Your task to perform on an android device: change the clock display to digital Image 0: 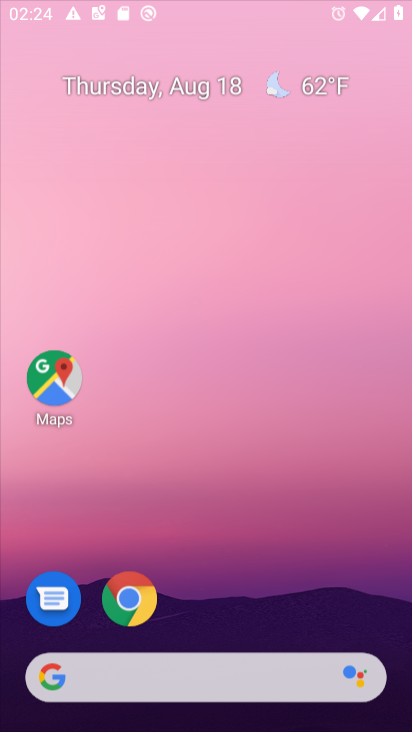
Step 0: press home button
Your task to perform on an android device: change the clock display to digital Image 1: 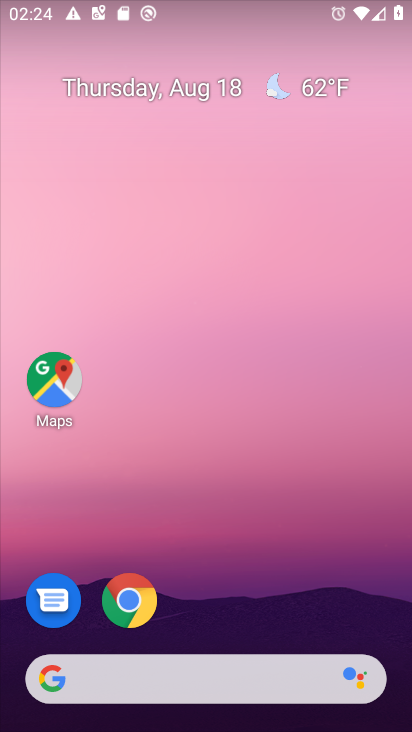
Step 1: drag from (225, 600) to (230, 145)
Your task to perform on an android device: change the clock display to digital Image 2: 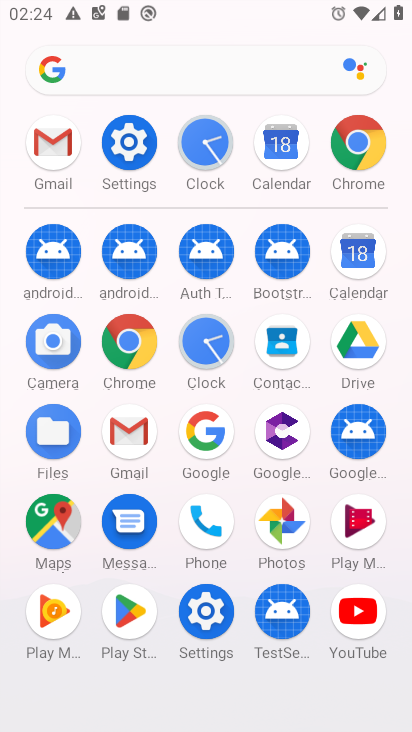
Step 2: click (202, 352)
Your task to perform on an android device: change the clock display to digital Image 3: 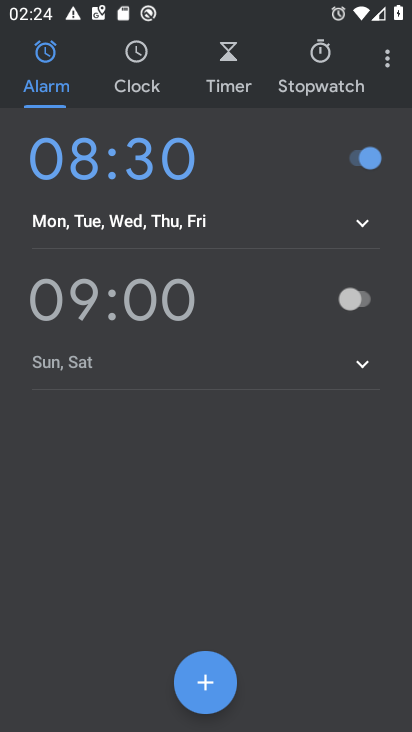
Step 3: click (383, 55)
Your task to perform on an android device: change the clock display to digital Image 4: 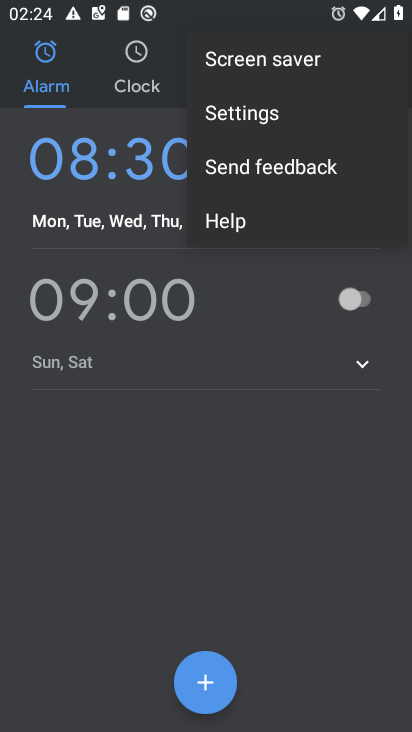
Step 4: click (264, 121)
Your task to perform on an android device: change the clock display to digital Image 5: 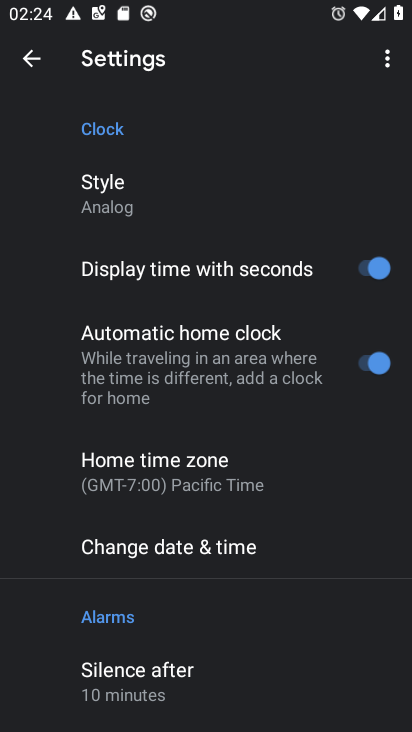
Step 5: click (139, 198)
Your task to perform on an android device: change the clock display to digital Image 6: 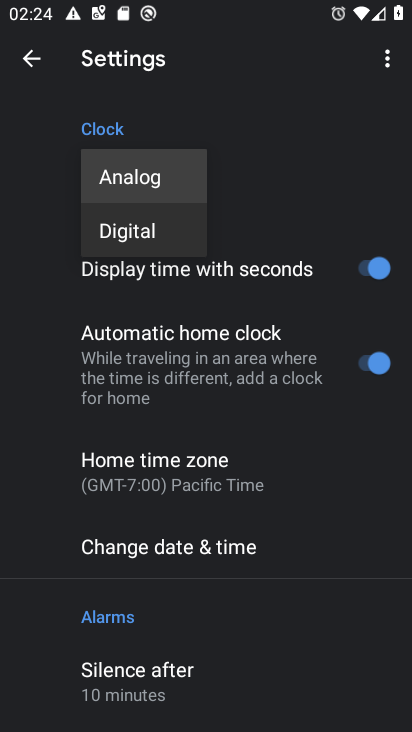
Step 6: click (110, 236)
Your task to perform on an android device: change the clock display to digital Image 7: 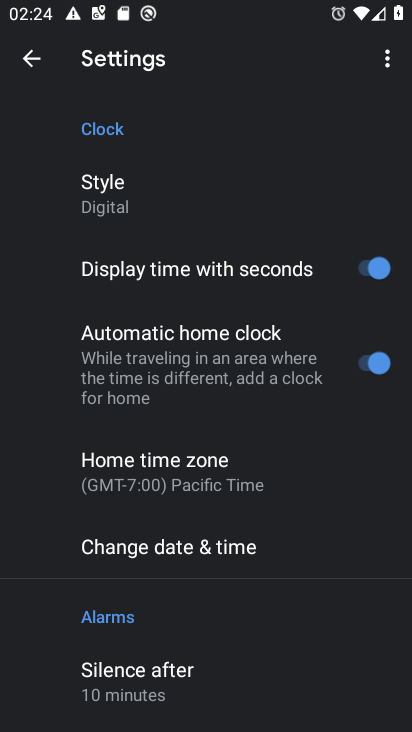
Step 7: task complete